Your task to perform on an android device: Search for Mexican restaurants on Maps Image 0: 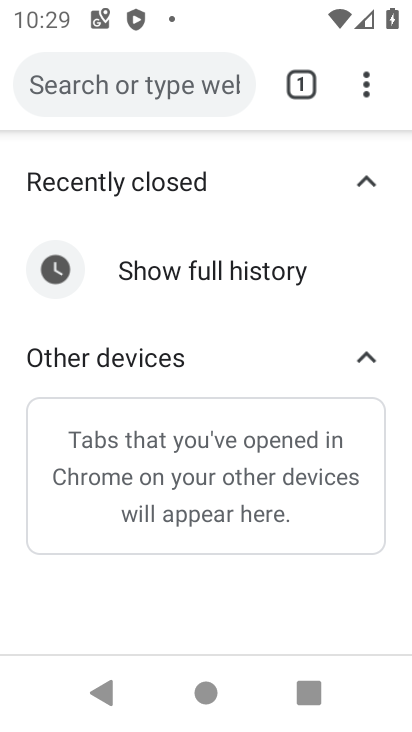
Step 0: press home button
Your task to perform on an android device: Search for Mexican restaurants on Maps Image 1: 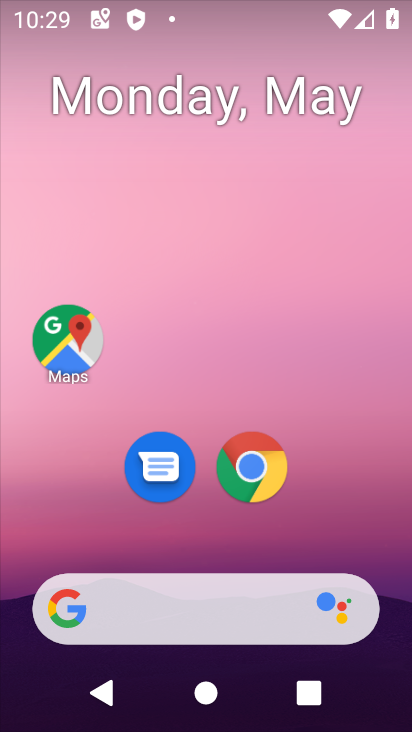
Step 1: click (68, 341)
Your task to perform on an android device: Search for Mexican restaurants on Maps Image 2: 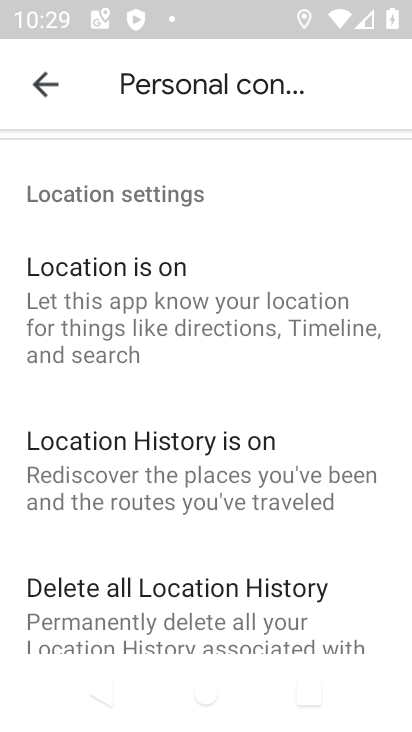
Step 2: press back button
Your task to perform on an android device: Search for Mexican restaurants on Maps Image 3: 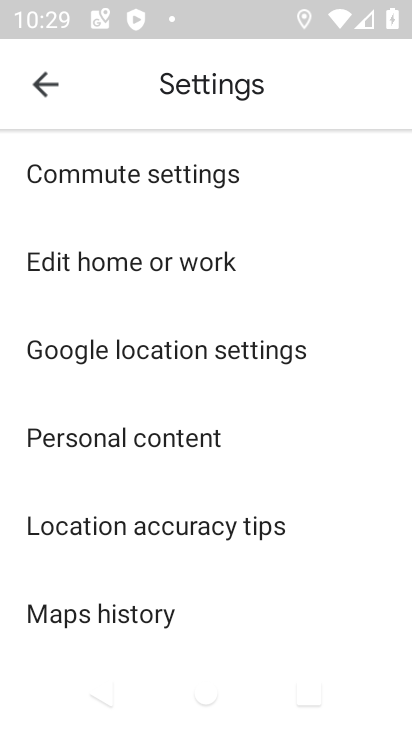
Step 3: press back button
Your task to perform on an android device: Search for Mexican restaurants on Maps Image 4: 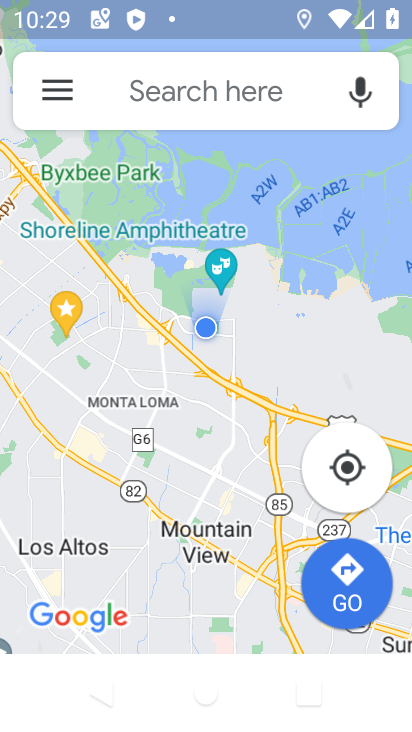
Step 4: click (188, 91)
Your task to perform on an android device: Search for Mexican restaurants on Maps Image 5: 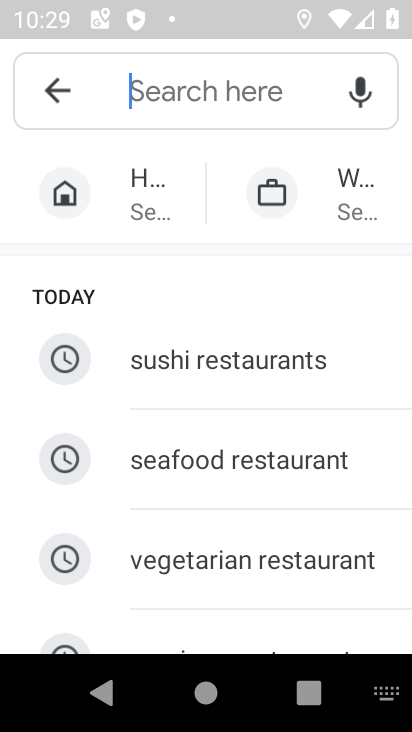
Step 5: type "mexican restaurants"
Your task to perform on an android device: Search for Mexican restaurants on Maps Image 6: 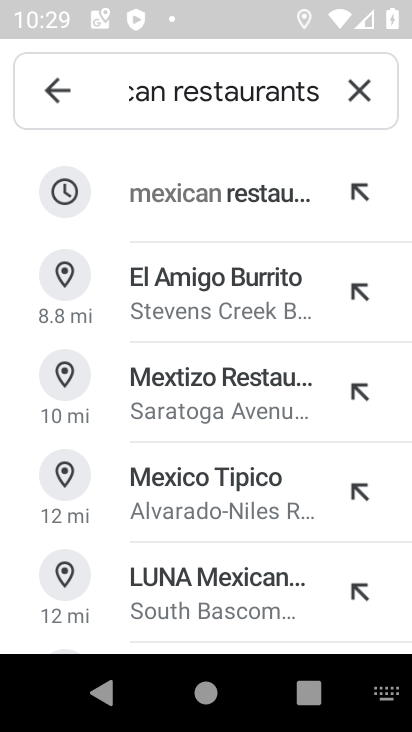
Step 6: click (215, 200)
Your task to perform on an android device: Search for Mexican restaurants on Maps Image 7: 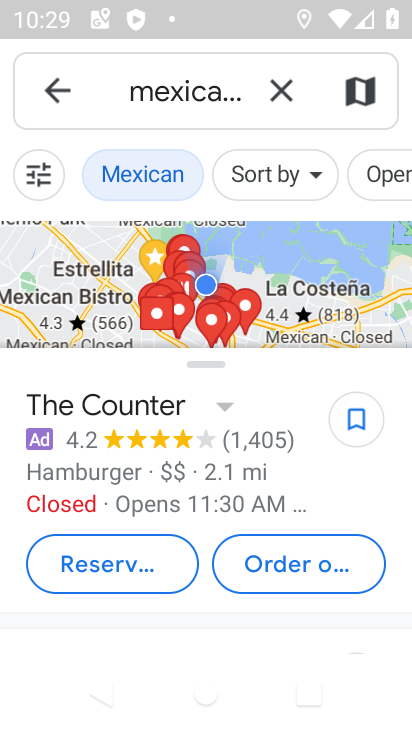
Step 7: task complete